Your task to perform on an android device: turn on notifications settings in the gmail app Image 0: 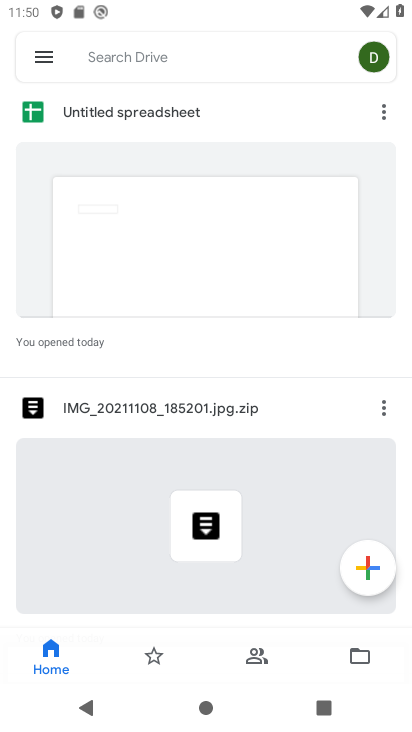
Step 0: press home button
Your task to perform on an android device: turn on notifications settings in the gmail app Image 1: 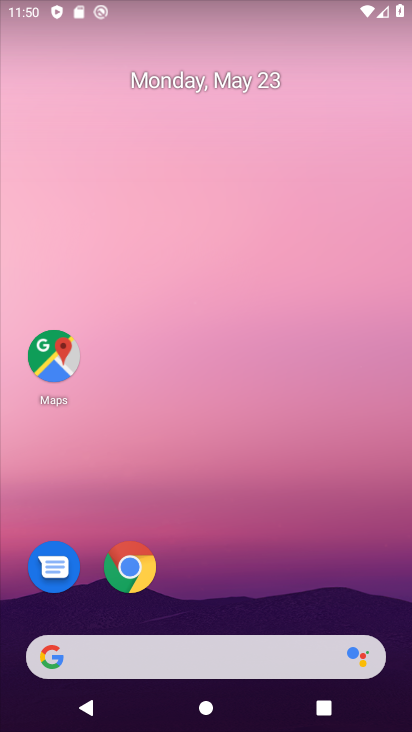
Step 1: drag from (251, 607) to (204, 156)
Your task to perform on an android device: turn on notifications settings in the gmail app Image 2: 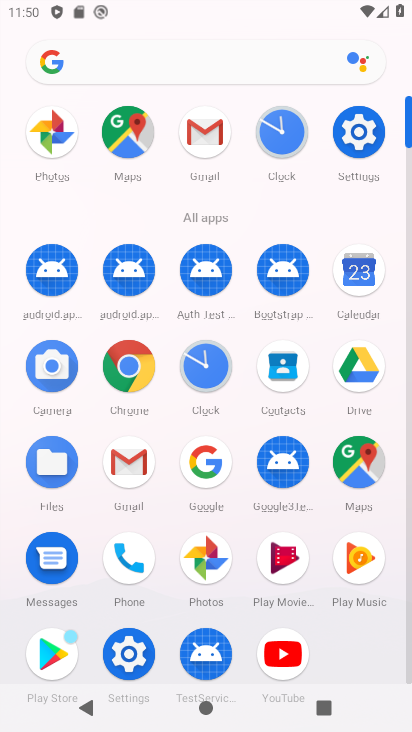
Step 2: click (207, 135)
Your task to perform on an android device: turn on notifications settings in the gmail app Image 3: 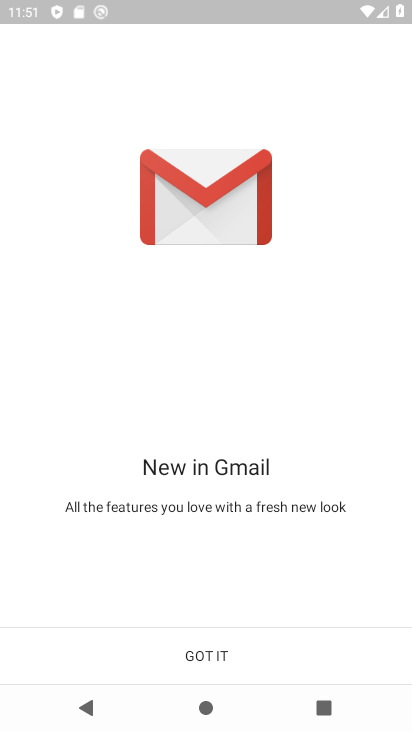
Step 3: click (212, 646)
Your task to perform on an android device: turn on notifications settings in the gmail app Image 4: 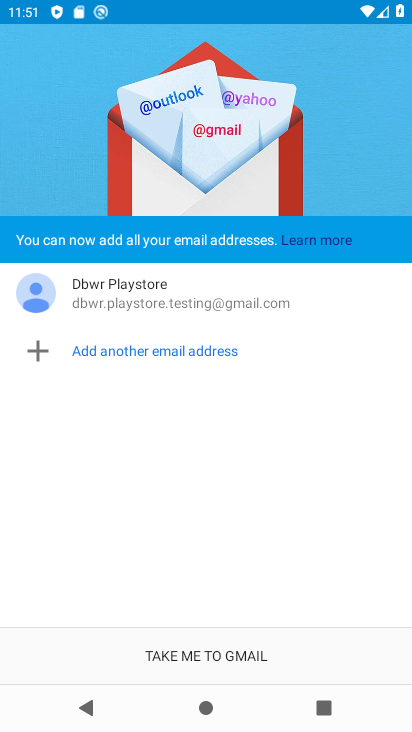
Step 4: click (212, 646)
Your task to perform on an android device: turn on notifications settings in the gmail app Image 5: 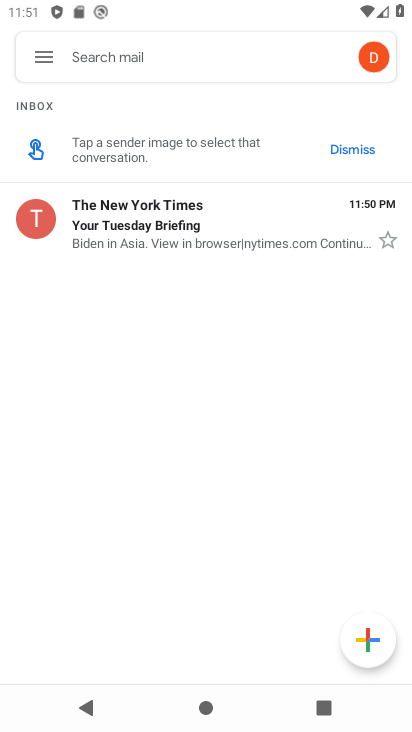
Step 5: click (41, 66)
Your task to perform on an android device: turn on notifications settings in the gmail app Image 6: 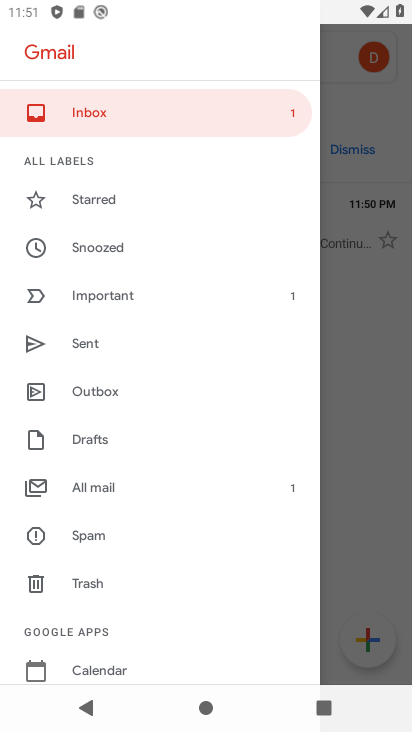
Step 6: drag from (110, 658) to (98, 278)
Your task to perform on an android device: turn on notifications settings in the gmail app Image 7: 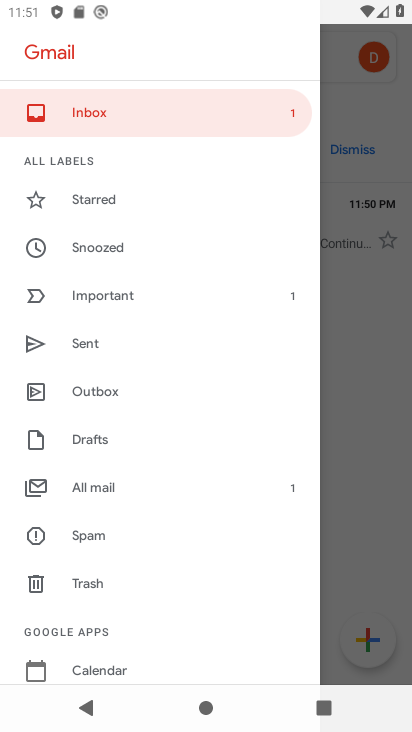
Step 7: drag from (134, 639) to (158, 112)
Your task to perform on an android device: turn on notifications settings in the gmail app Image 8: 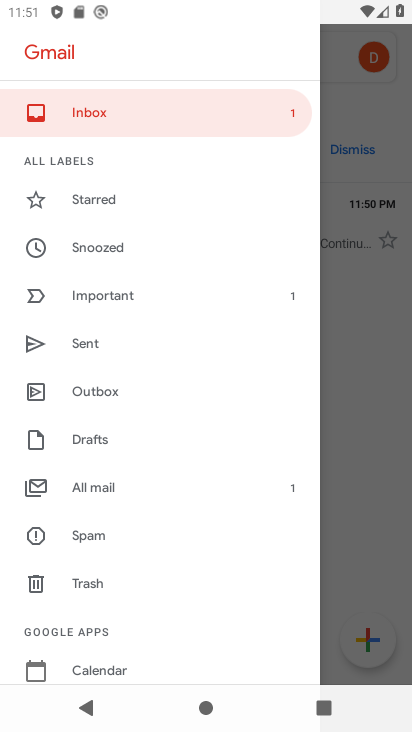
Step 8: drag from (83, 648) to (80, 225)
Your task to perform on an android device: turn on notifications settings in the gmail app Image 9: 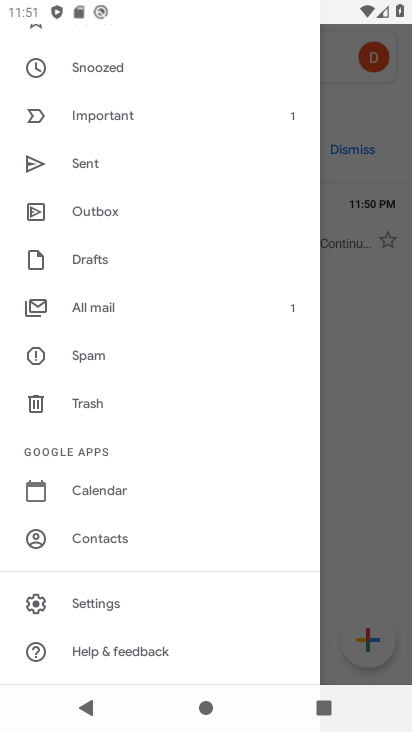
Step 9: click (117, 609)
Your task to perform on an android device: turn on notifications settings in the gmail app Image 10: 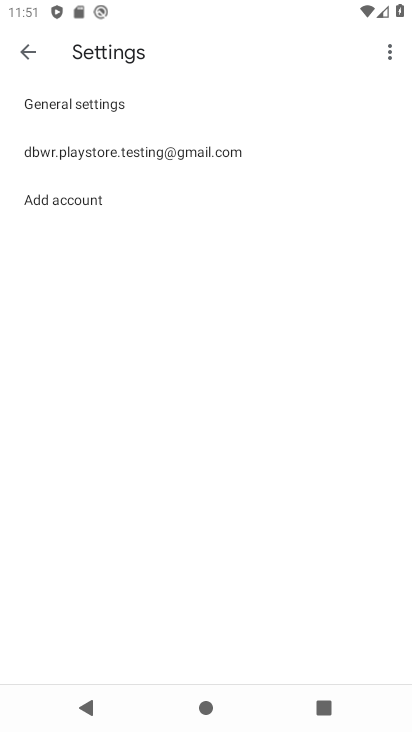
Step 10: click (208, 155)
Your task to perform on an android device: turn on notifications settings in the gmail app Image 11: 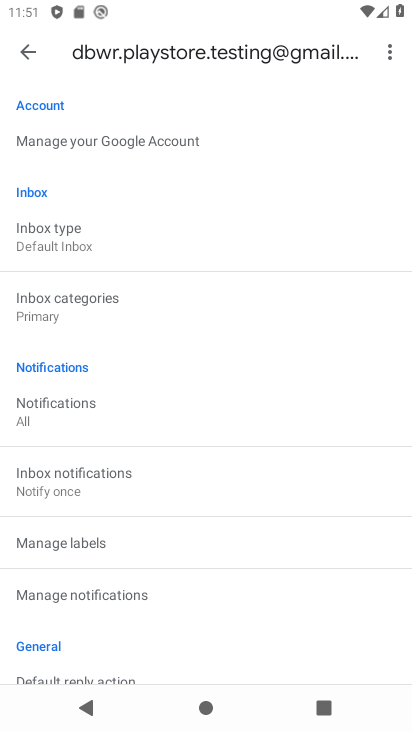
Step 11: click (177, 595)
Your task to perform on an android device: turn on notifications settings in the gmail app Image 12: 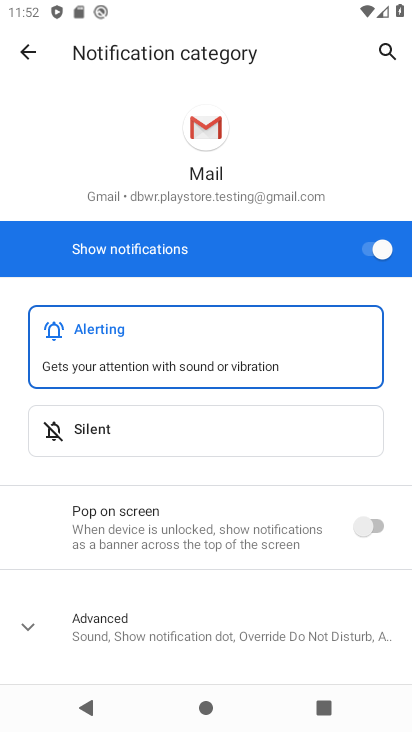
Step 12: task complete